Your task to perform on an android device: set default search engine in the chrome app Image 0: 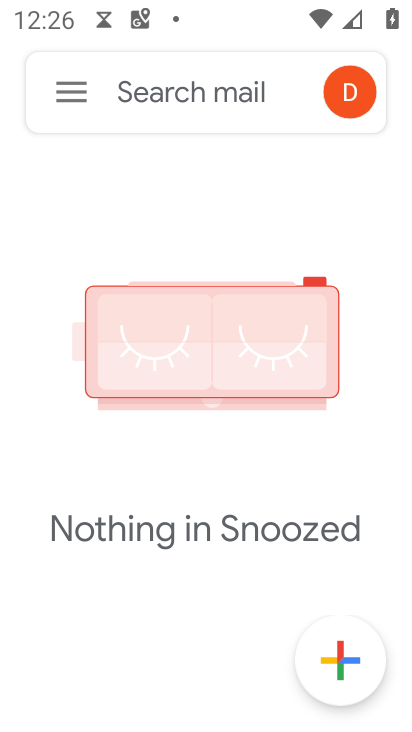
Step 0: press home button
Your task to perform on an android device: set default search engine in the chrome app Image 1: 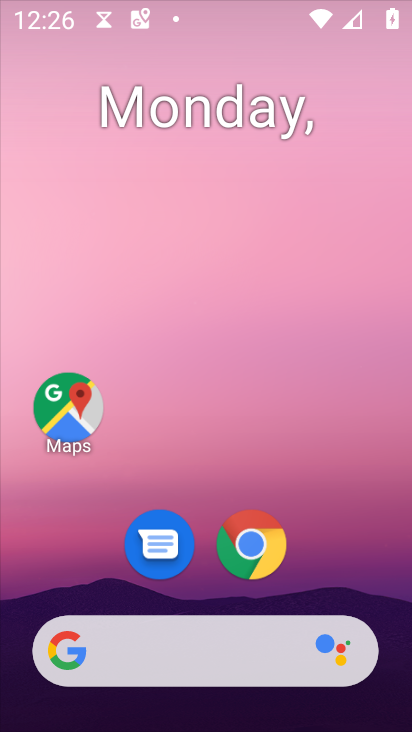
Step 1: drag from (284, 552) to (295, 222)
Your task to perform on an android device: set default search engine in the chrome app Image 2: 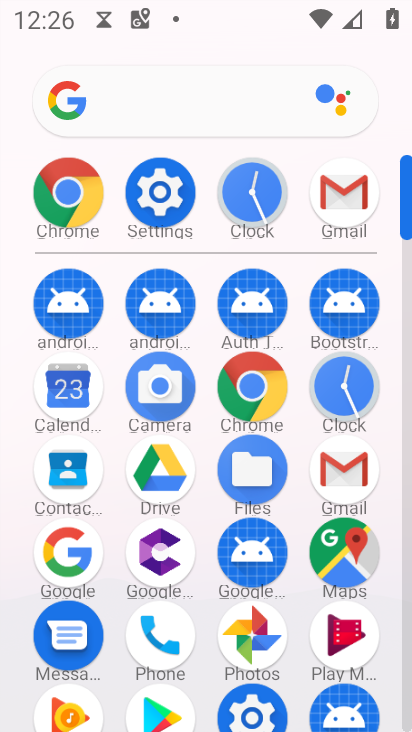
Step 2: click (152, 197)
Your task to perform on an android device: set default search engine in the chrome app Image 3: 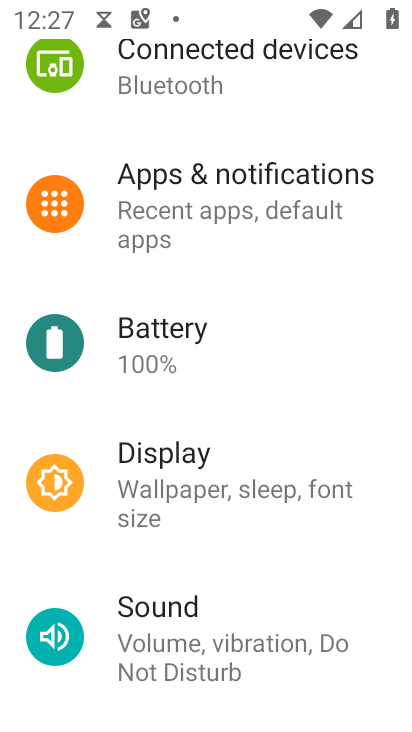
Step 3: drag from (284, 150) to (288, 599)
Your task to perform on an android device: set default search engine in the chrome app Image 4: 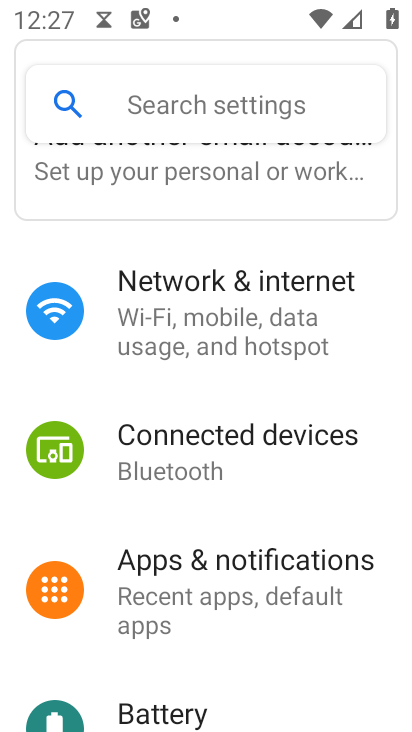
Step 4: press home button
Your task to perform on an android device: set default search engine in the chrome app Image 5: 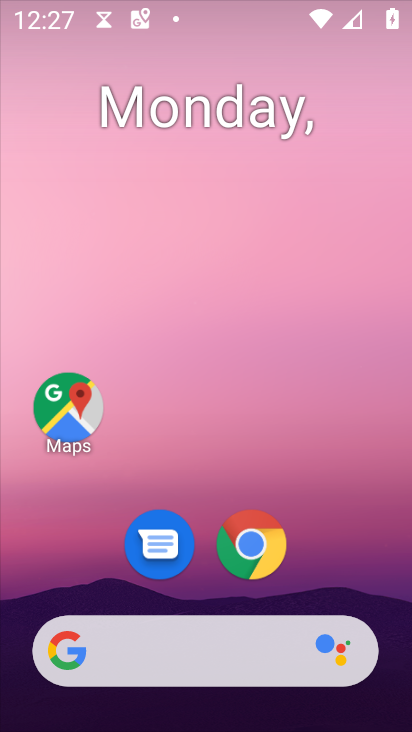
Step 5: drag from (319, 609) to (318, 234)
Your task to perform on an android device: set default search engine in the chrome app Image 6: 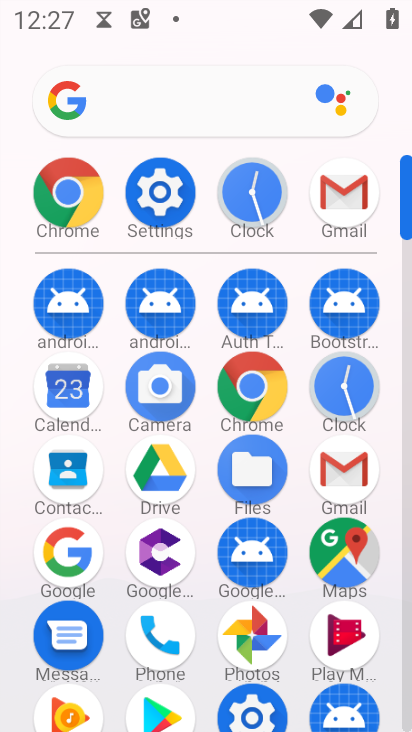
Step 6: click (238, 386)
Your task to perform on an android device: set default search engine in the chrome app Image 7: 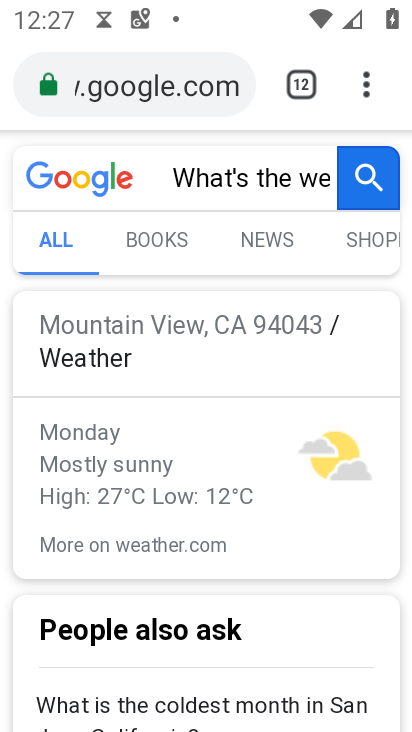
Step 7: click (393, 95)
Your task to perform on an android device: set default search engine in the chrome app Image 8: 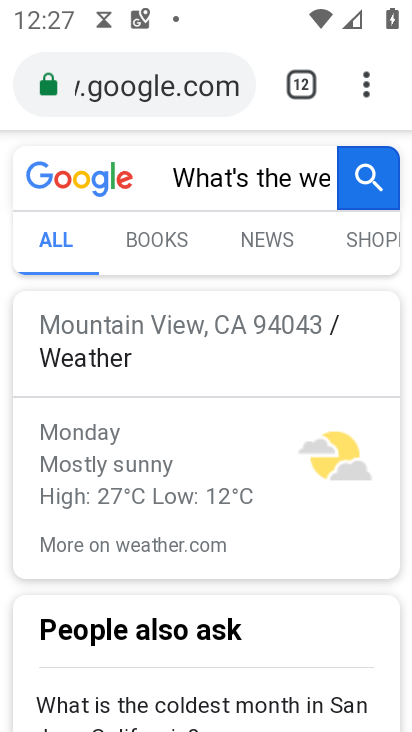
Step 8: click (387, 80)
Your task to perform on an android device: set default search engine in the chrome app Image 9: 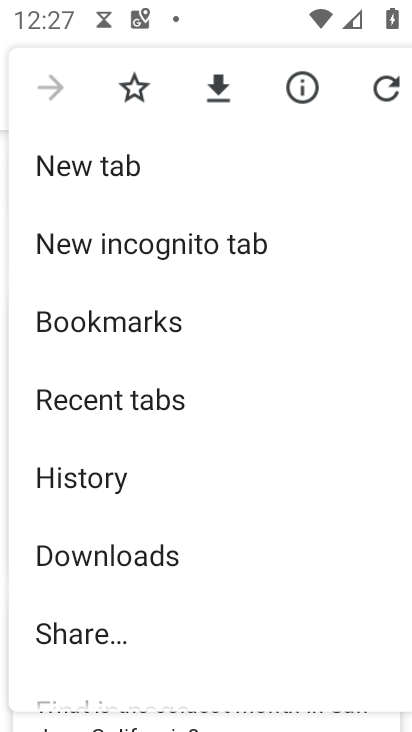
Step 9: drag from (242, 605) to (227, 159)
Your task to perform on an android device: set default search engine in the chrome app Image 10: 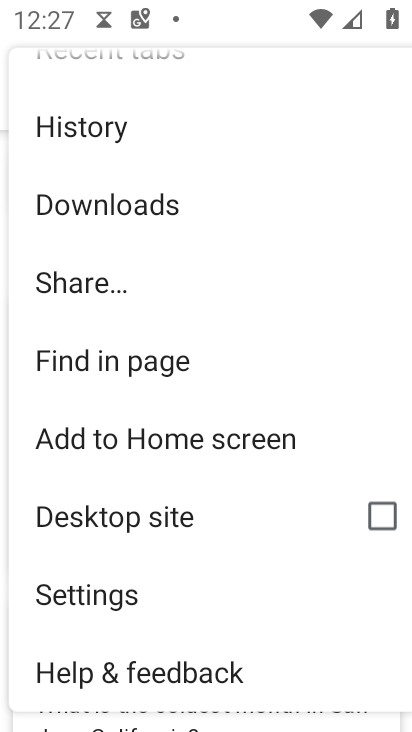
Step 10: click (97, 585)
Your task to perform on an android device: set default search engine in the chrome app Image 11: 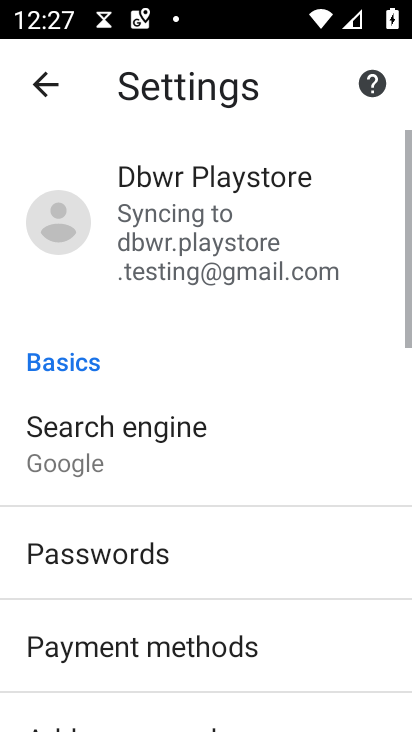
Step 11: click (131, 444)
Your task to perform on an android device: set default search engine in the chrome app Image 12: 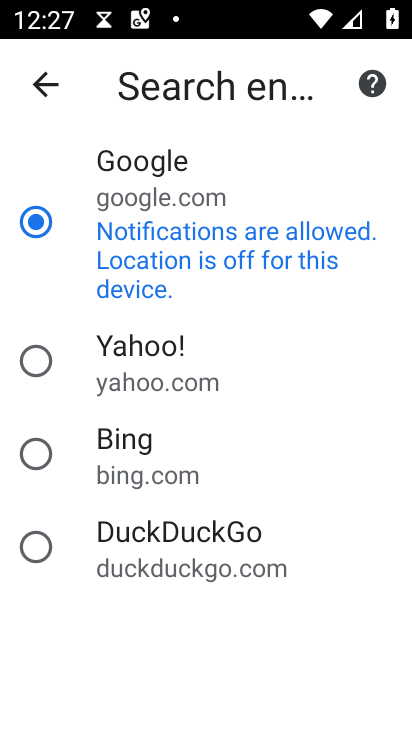
Step 12: click (85, 460)
Your task to perform on an android device: set default search engine in the chrome app Image 13: 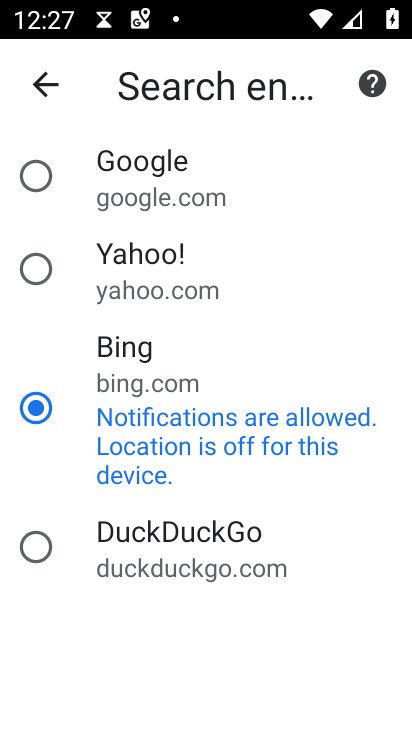
Step 13: task complete